Your task to perform on an android device: Go to Android settings Image 0: 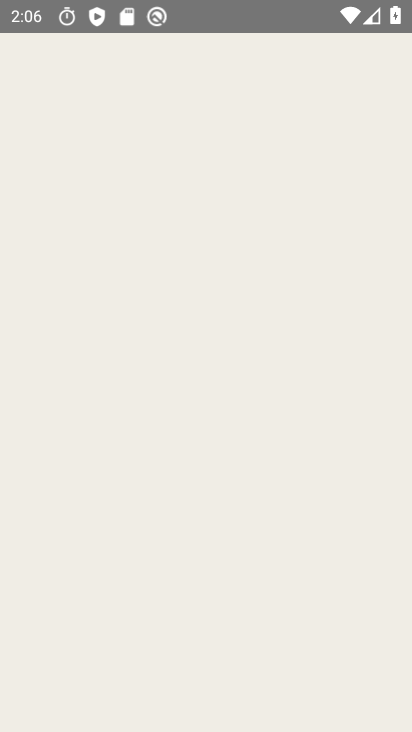
Step 0: drag from (205, 606) to (218, 253)
Your task to perform on an android device: Go to Android settings Image 1: 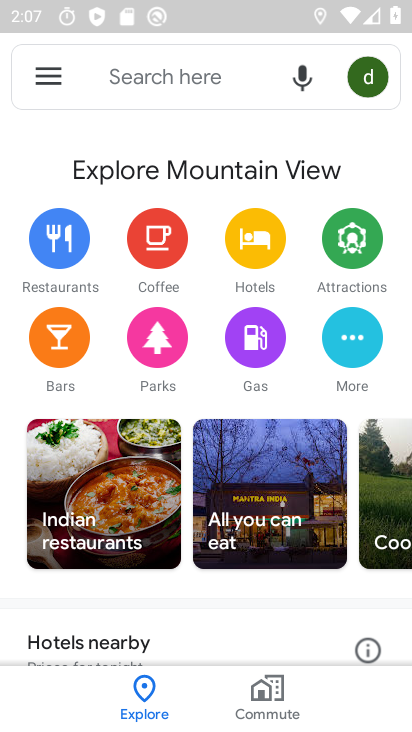
Step 1: press home button
Your task to perform on an android device: Go to Android settings Image 2: 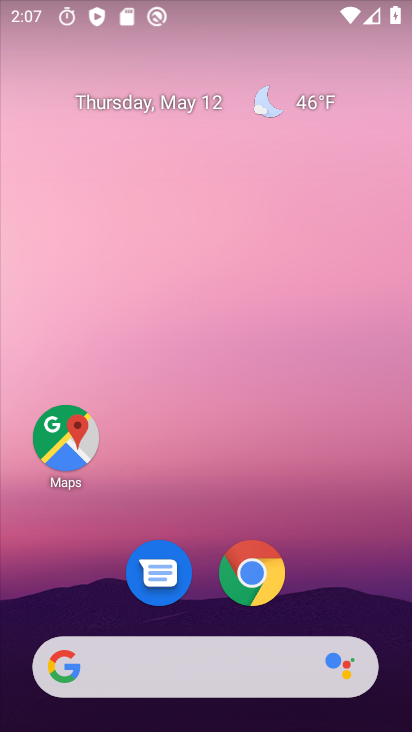
Step 2: drag from (208, 624) to (199, 91)
Your task to perform on an android device: Go to Android settings Image 3: 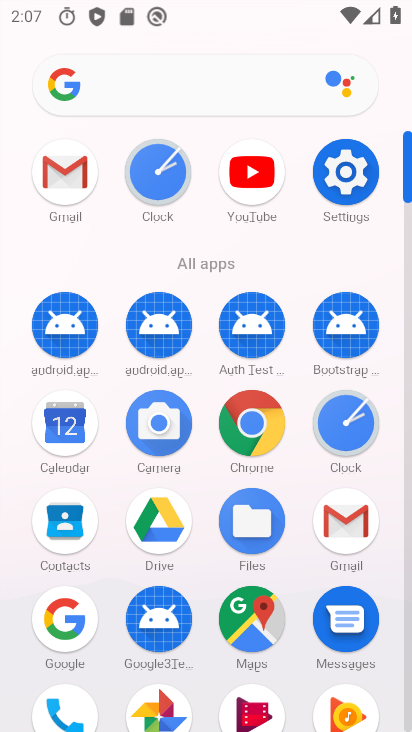
Step 3: click (360, 185)
Your task to perform on an android device: Go to Android settings Image 4: 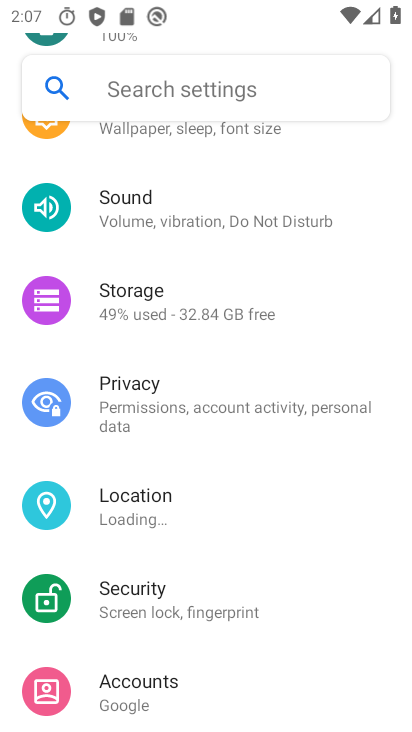
Step 4: drag from (140, 653) to (141, 130)
Your task to perform on an android device: Go to Android settings Image 5: 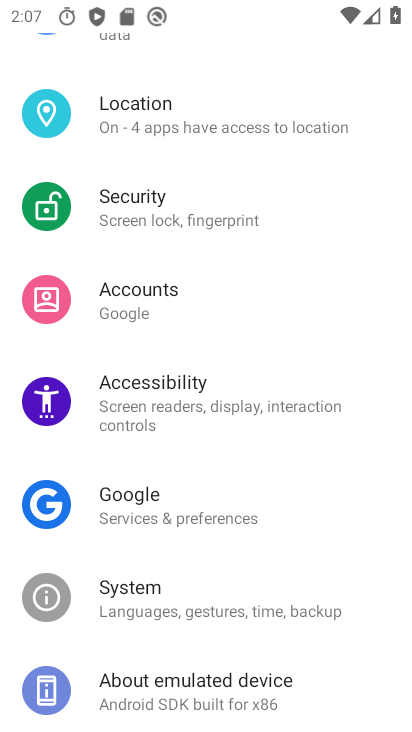
Step 5: click (220, 675)
Your task to perform on an android device: Go to Android settings Image 6: 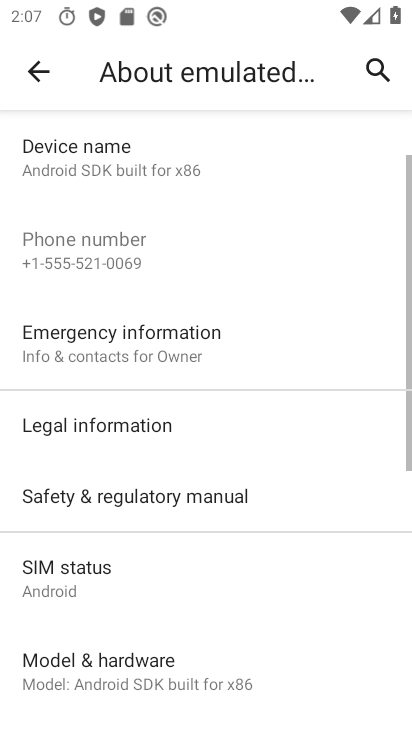
Step 6: task complete